Your task to perform on an android device: Search for the best gaming mouses on Amazon. Image 0: 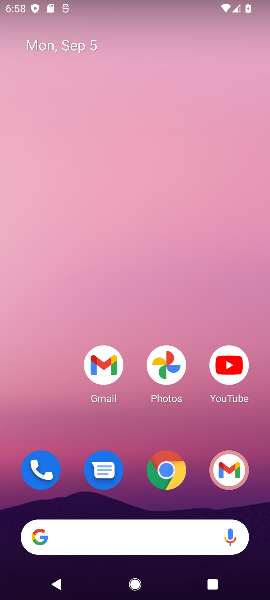
Step 0: click (117, 531)
Your task to perform on an android device: Search for the best gaming mouses on Amazon. Image 1: 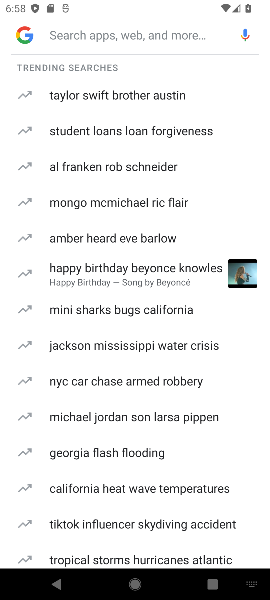
Step 1: type "amazon"
Your task to perform on an android device: Search for the best gaming mouses on Amazon. Image 2: 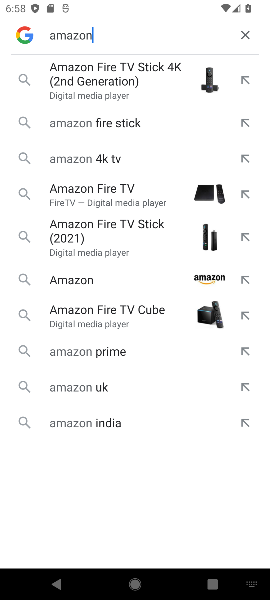
Step 2: click (96, 418)
Your task to perform on an android device: Search for the best gaming mouses on Amazon. Image 3: 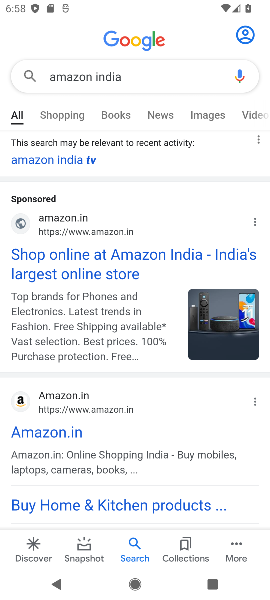
Step 3: click (58, 427)
Your task to perform on an android device: Search for the best gaming mouses on Amazon. Image 4: 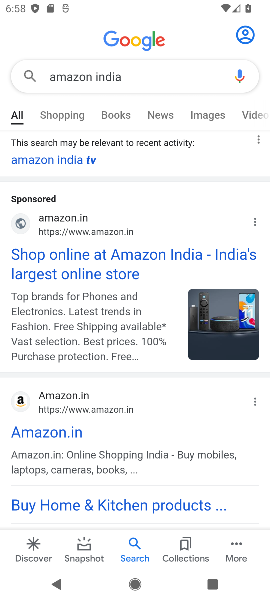
Step 4: click (57, 430)
Your task to perform on an android device: Search for the best gaming mouses on Amazon. Image 5: 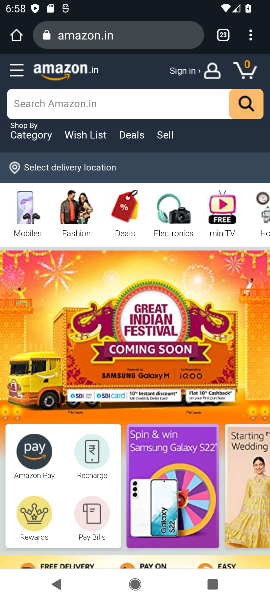
Step 5: click (134, 99)
Your task to perform on an android device: Search for the best gaming mouses on Amazon. Image 6: 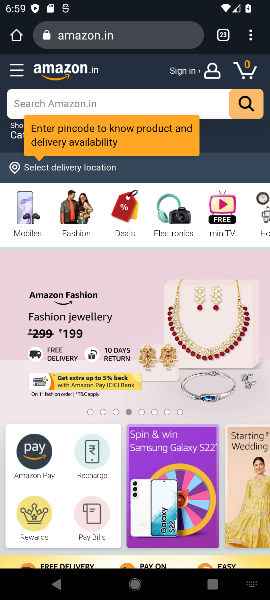
Step 6: type "best gaming mouses"
Your task to perform on an android device: Search for the best gaming mouses on Amazon. Image 7: 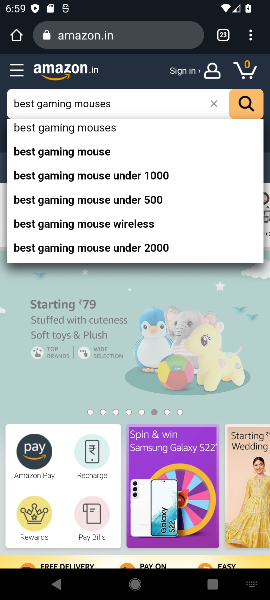
Step 7: click (249, 103)
Your task to perform on an android device: Search for the best gaming mouses on Amazon. Image 8: 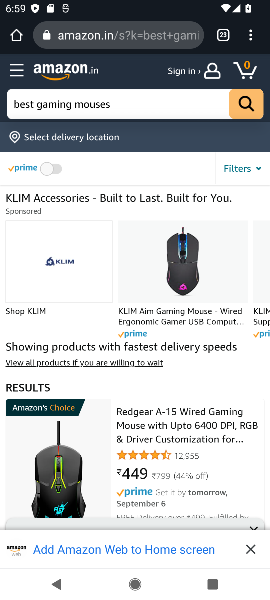
Step 8: task complete